Your task to perform on an android device: Is it going to rain tomorrow? Image 0: 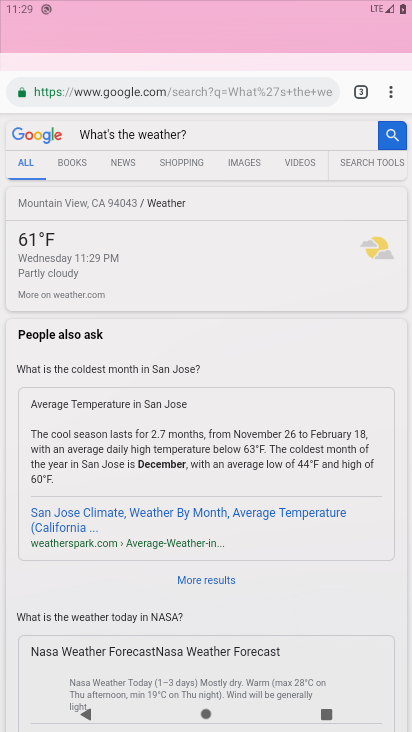
Step 0: press home button
Your task to perform on an android device: Is it going to rain tomorrow? Image 1: 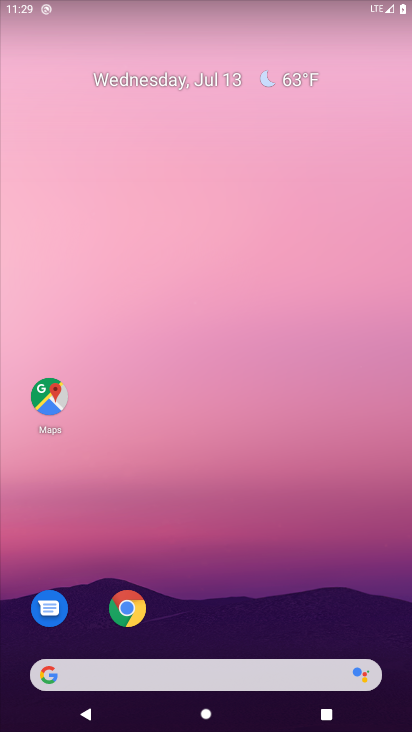
Step 1: drag from (220, 651) to (253, 205)
Your task to perform on an android device: Is it going to rain tomorrow? Image 2: 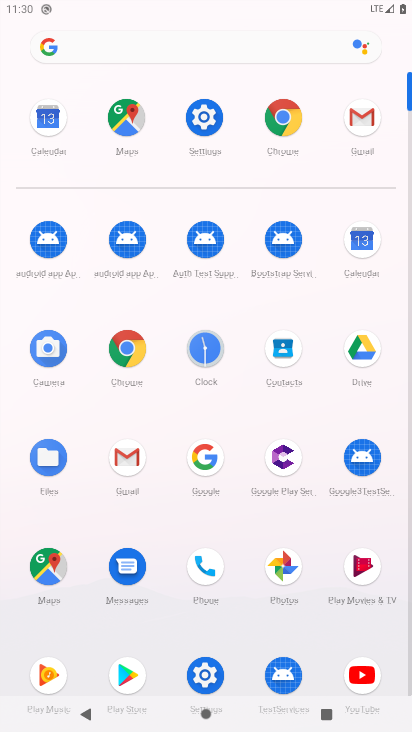
Step 2: click (288, 116)
Your task to perform on an android device: Is it going to rain tomorrow? Image 3: 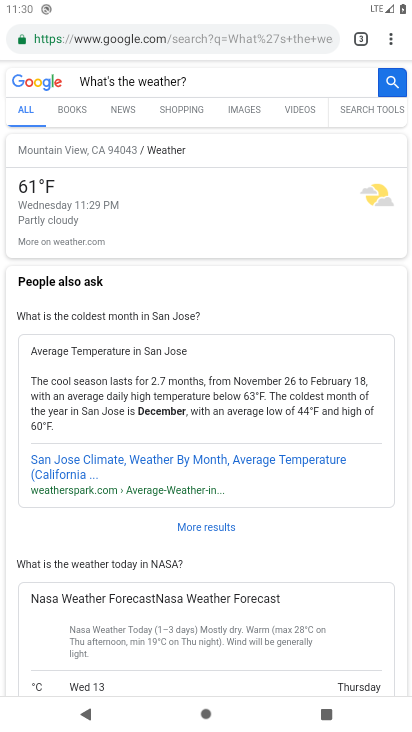
Step 3: click (191, 42)
Your task to perform on an android device: Is it going to rain tomorrow? Image 4: 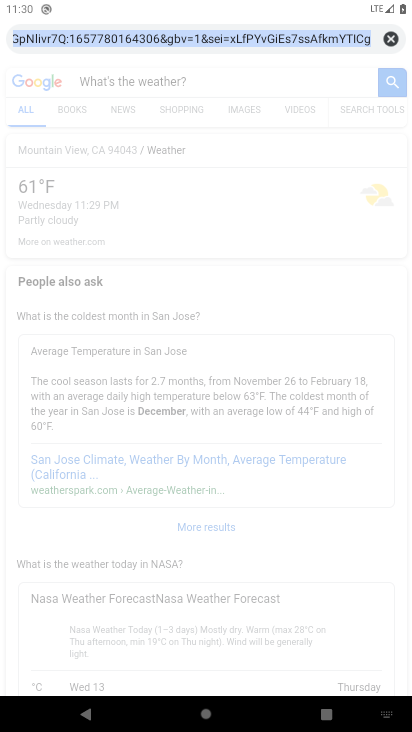
Step 4: type "Is it going to rain tomorrow?"
Your task to perform on an android device: Is it going to rain tomorrow? Image 5: 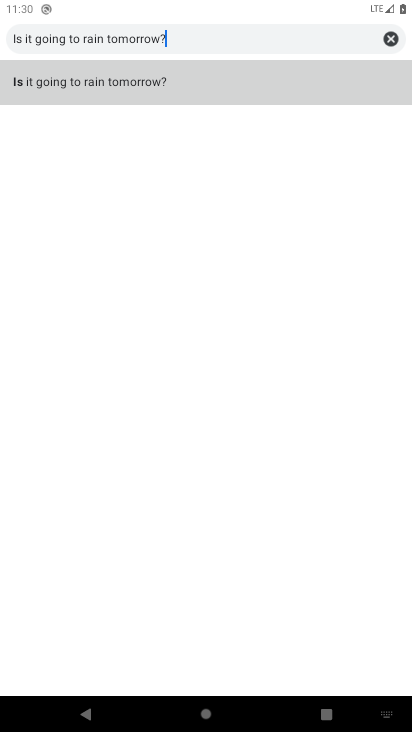
Step 5: type ""
Your task to perform on an android device: Is it going to rain tomorrow? Image 6: 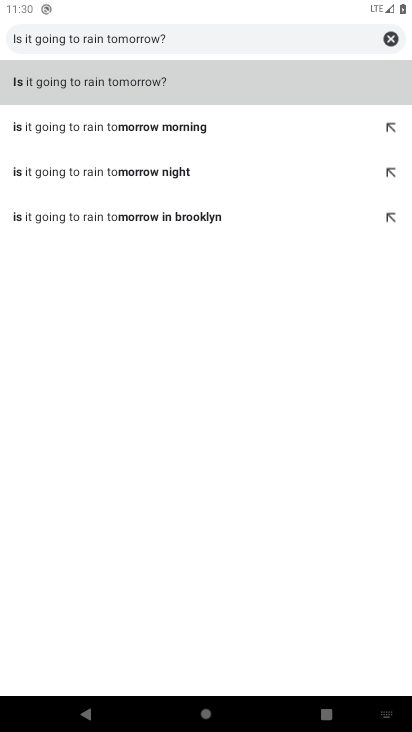
Step 6: click (100, 86)
Your task to perform on an android device: Is it going to rain tomorrow? Image 7: 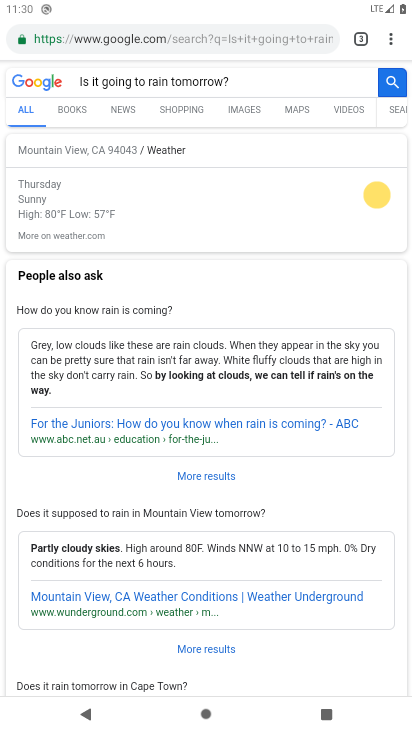
Step 7: task complete